Your task to perform on an android device: Open calendar and show me the fourth week of next month Image 0: 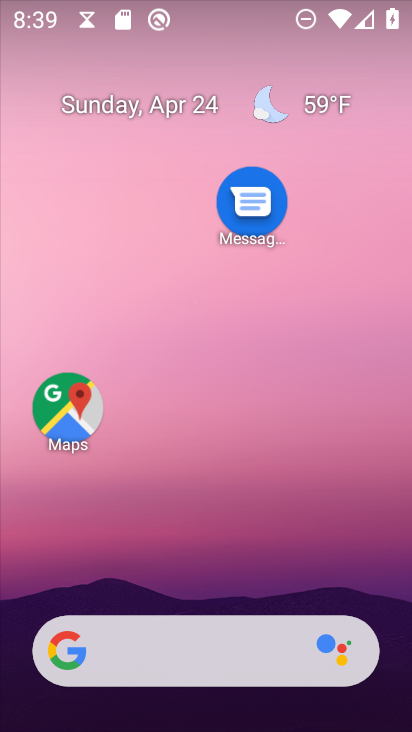
Step 0: drag from (174, 655) to (305, 45)
Your task to perform on an android device: Open calendar and show me the fourth week of next month Image 1: 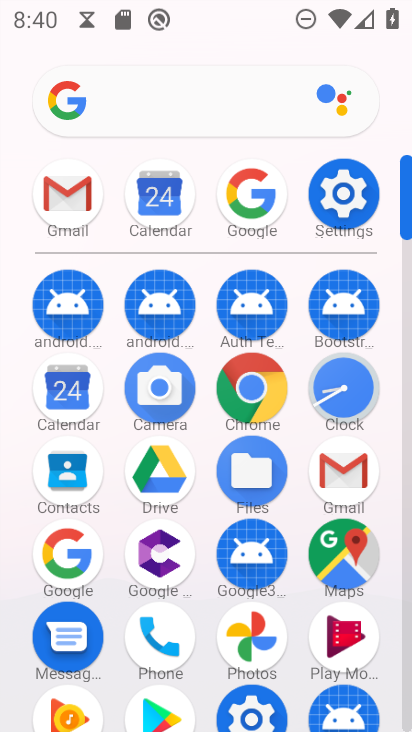
Step 1: click (70, 400)
Your task to perform on an android device: Open calendar and show me the fourth week of next month Image 2: 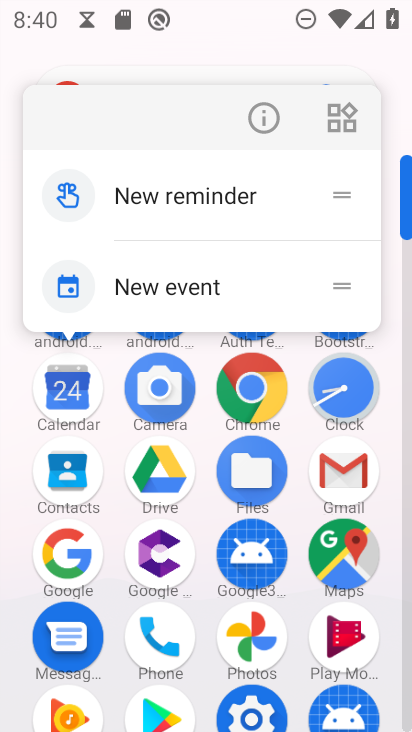
Step 2: click (75, 413)
Your task to perform on an android device: Open calendar and show me the fourth week of next month Image 3: 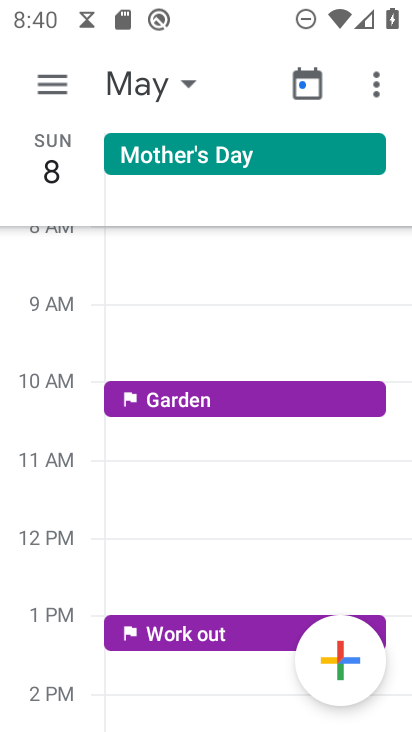
Step 3: click (150, 70)
Your task to perform on an android device: Open calendar and show me the fourth week of next month Image 4: 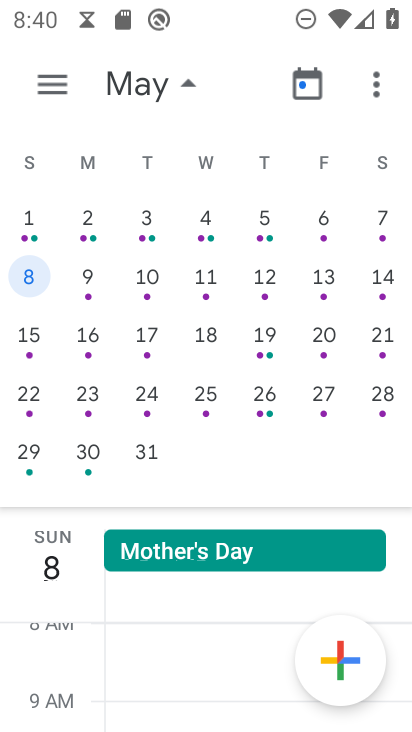
Step 4: click (38, 399)
Your task to perform on an android device: Open calendar and show me the fourth week of next month Image 5: 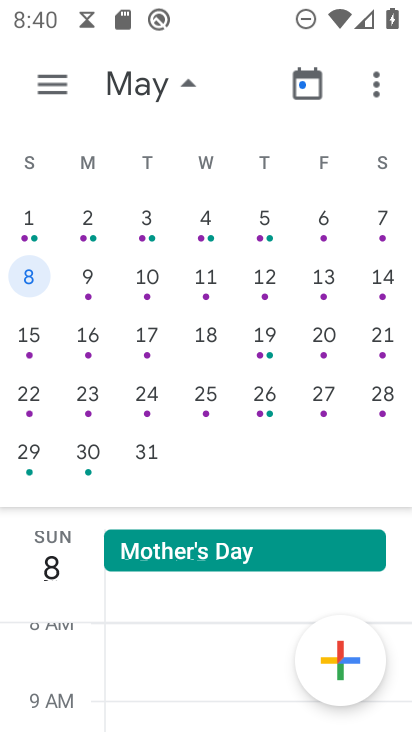
Step 5: click (31, 395)
Your task to perform on an android device: Open calendar and show me the fourth week of next month Image 6: 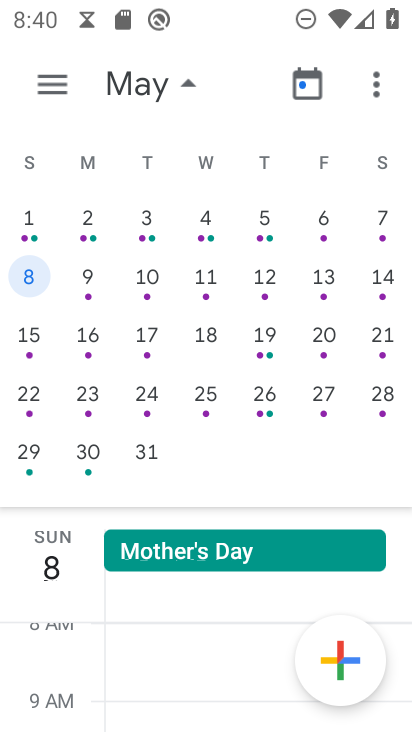
Step 6: click (35, 393)
Your task to perform on an android device: Open calendar and show me the fourth week of next month Image 7: 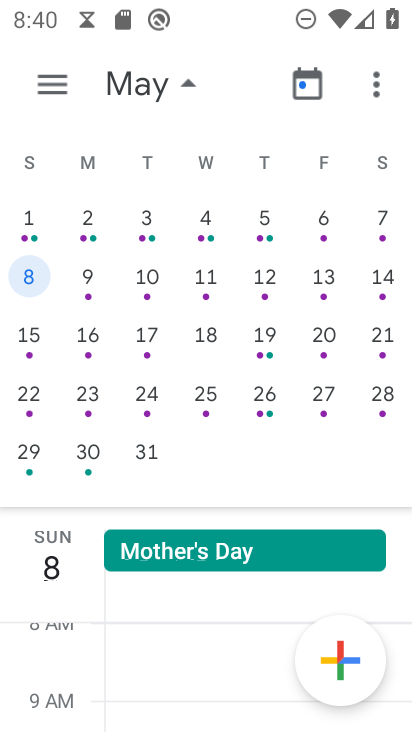
Step 7: click (38, 400)
Your task to perform on an android device: Open calendar and show me the fourth week of next month Image 8: 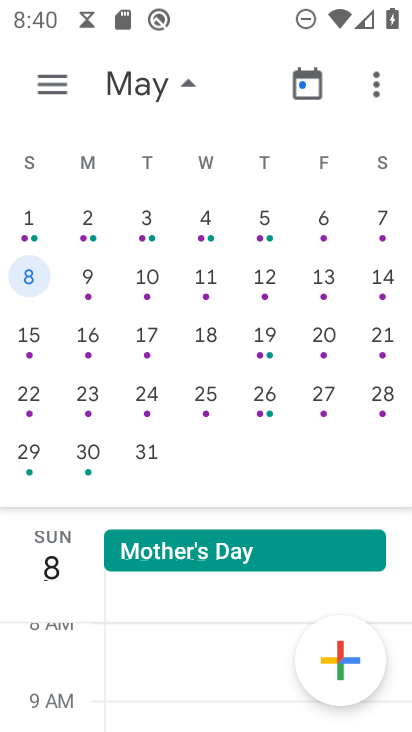
Step 8: click (39, 390)
Your task to perform on an android device: Open calendar and show me the fourth week of next month Image 9: 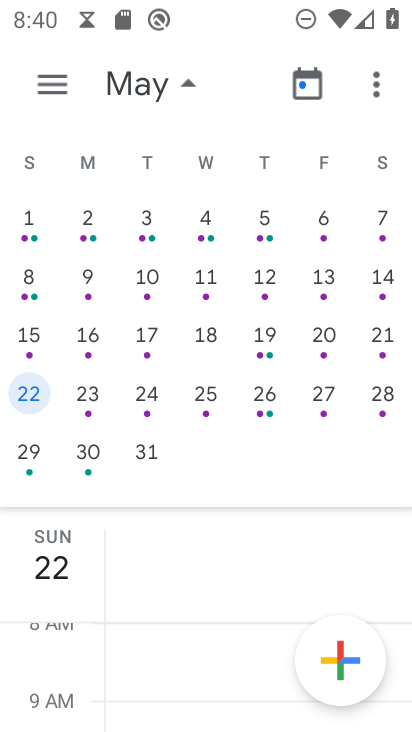
Step 9: click (60, 83)
Your task to perform on an android device: Open calendar and show me the fourth week of next month Image 10: 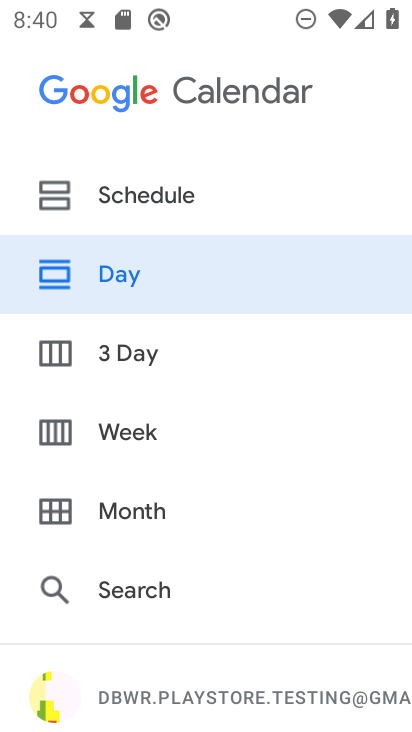
Step 10: click (122, 442)
Your task to perform on an android device: Open calendar and show me the fourth week of next month Image 11: 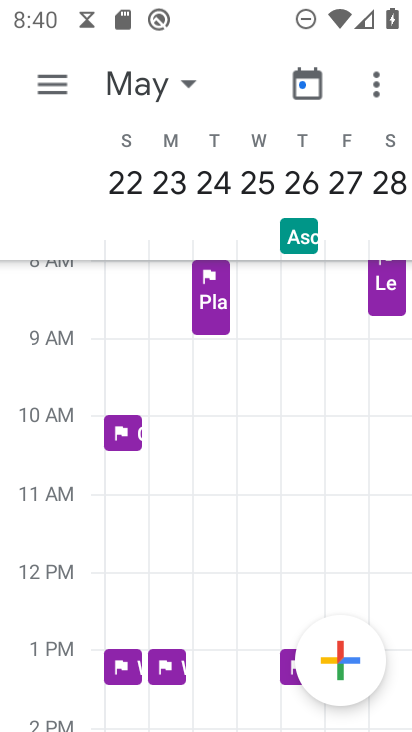
Step 11: task complete